Your task to perform on an android device: turn off picture-in-picture Image 0: 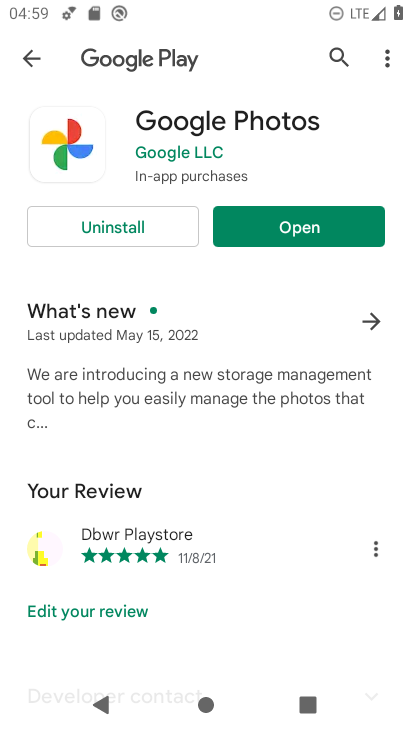
Step 0: press home button
Your task to perform on an android device: turn off picture-in-picture Image 1: 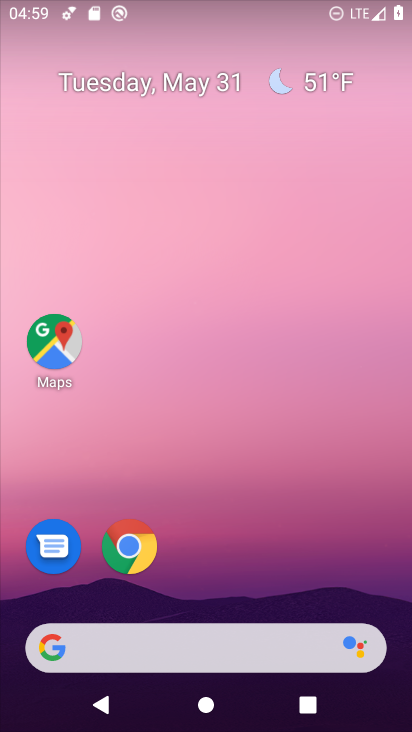
Step 1: drag from (204, 605) to (251, 374)
Your task to perform on an android device: turn off picture-in-picture Image 2: 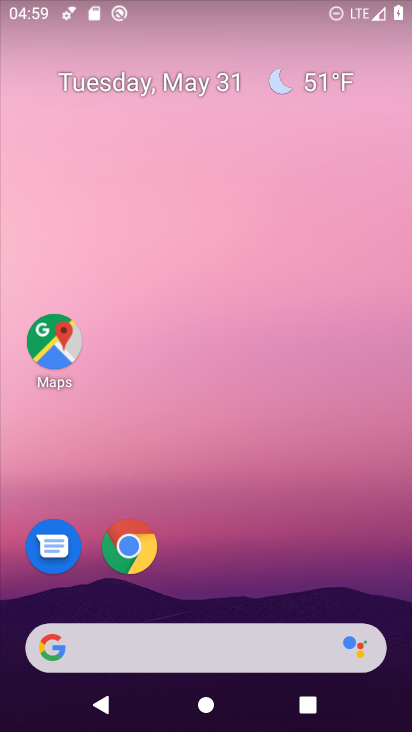
Step 2: drag from (201, 602) to (221, 240)
Your task to perform on an android device: turn off picture-in-picture Image 3: 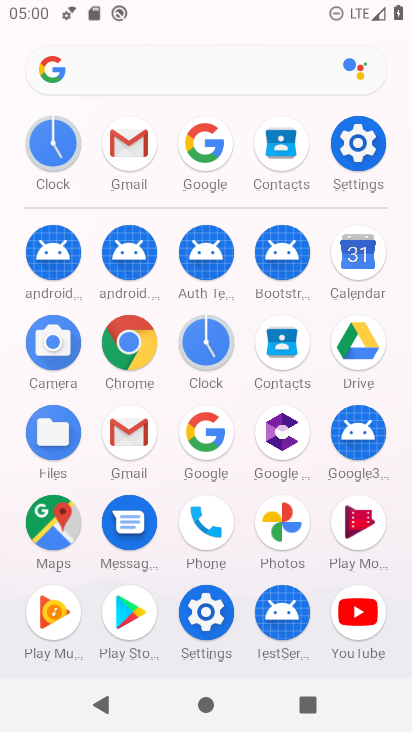
Step 3: click (356, 147)
Your task to perform on an android device: turn off picture-in-picture Image 4: 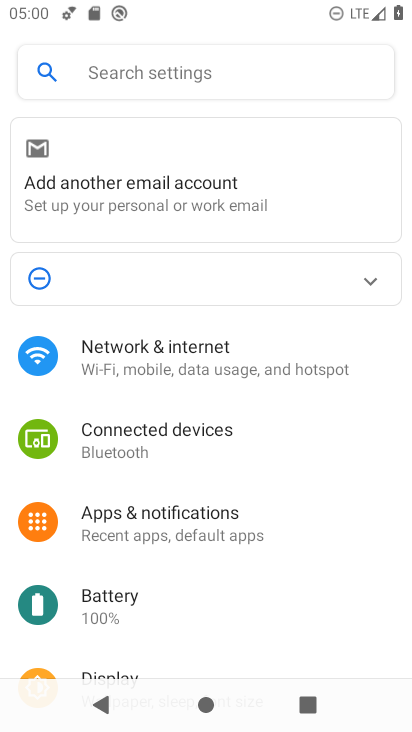
Step 4: click (153, 522)
Your task to perform on an android device: turn off picture-in-picture Image 5: 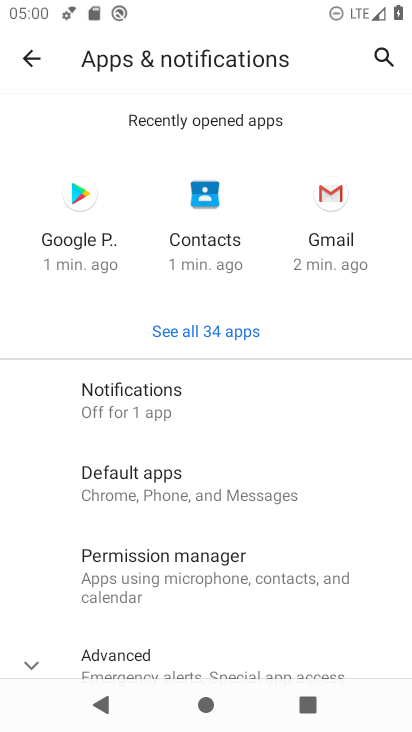
Step 5: drag from (123, 600) to (171, 393)
Your task to perform on an android device: turn off picture-in-picture Image 6: 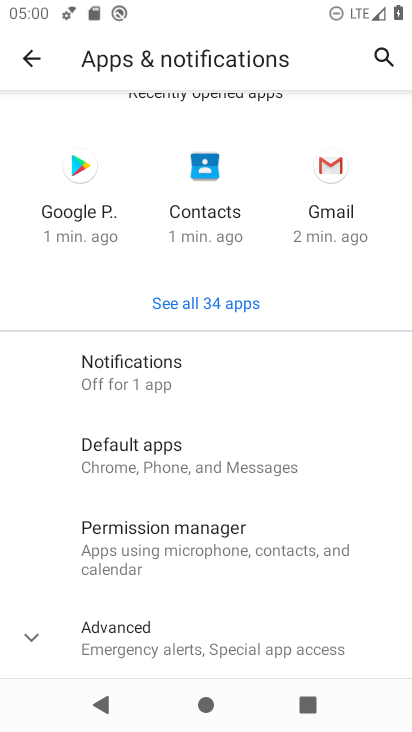
Step 6: click (112, 638)
Your task to perform on an android device: turn off picture-in-picture Image 7: 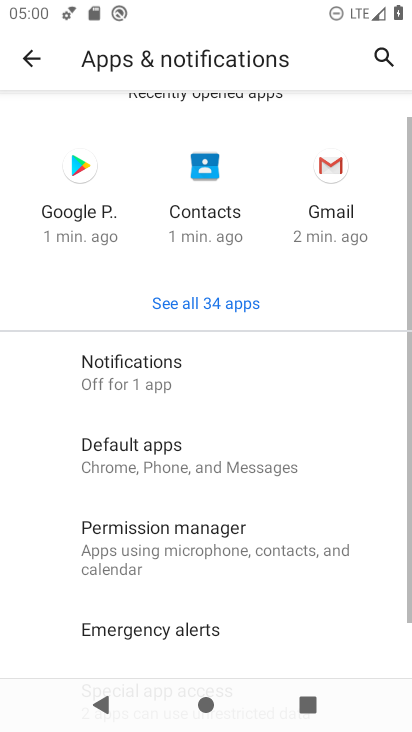
Step 7: drag from (112, 637) to (178, 461)
Your task to perform on an android device: turn off picture-in-picture Image 8: 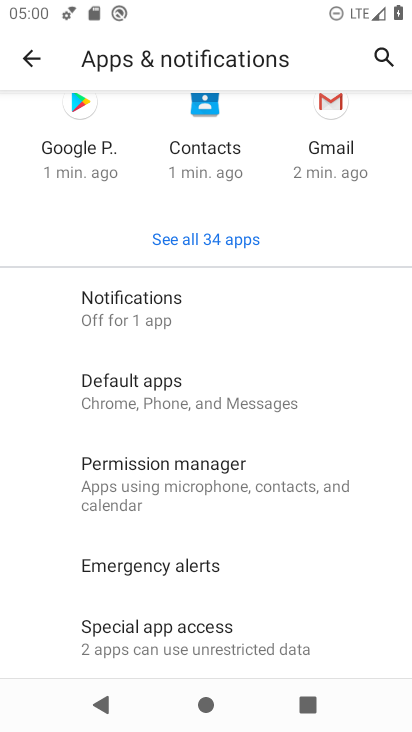
Step 8: click (141, 654)
Your task to perform on an android device: turn off picture-in-picture Image 9: 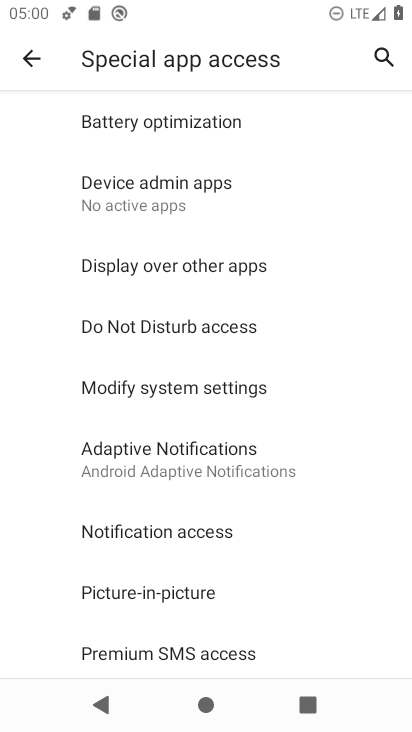
Step 9: click (141, 598)
Your task to perform on an android device: turn off picture-in-picture Image 10: 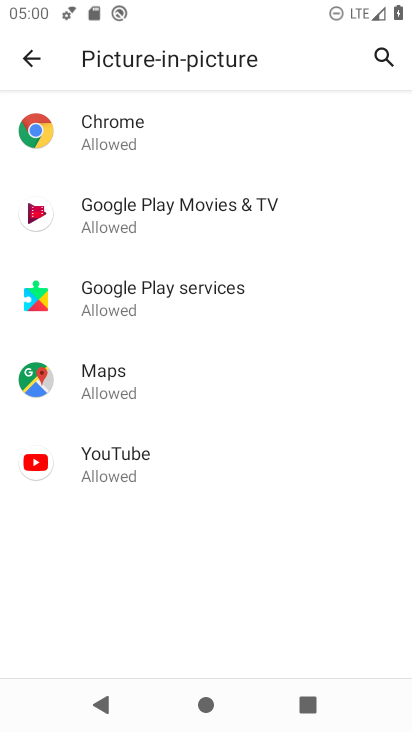
Step 10: click (108, 130)
Your task to perform on an android device: turn off picture-in-picture Image 11: 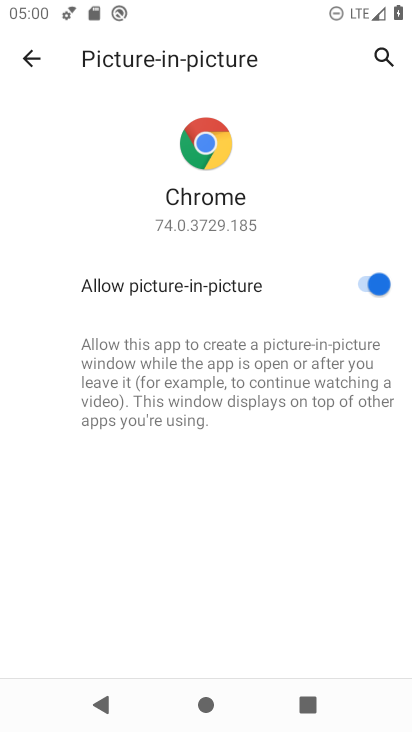
Step 11: click (373, 287)
Your task to perform on an android device: turn off picture-in-picture Image 12: 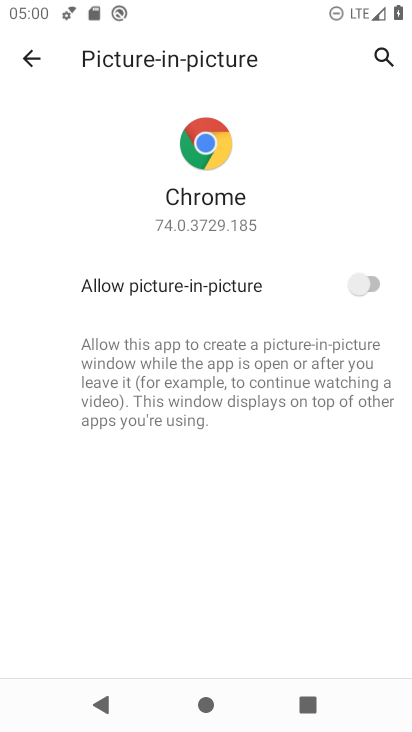
Step 12: task complete